Your task to perform on an android device: Go to Maps Image 0: 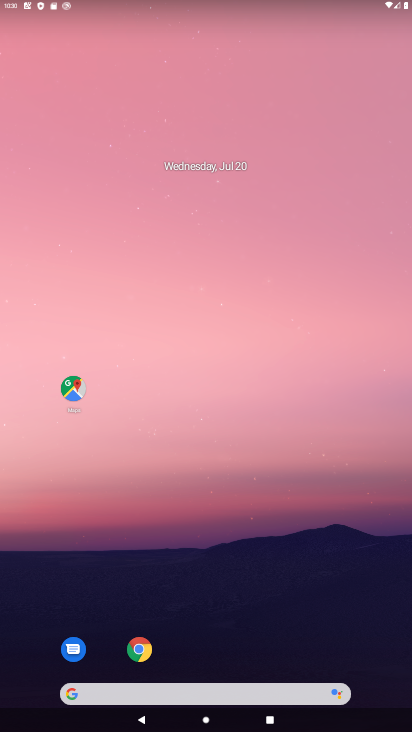
Step 0: click (72, 380)
Your task to perform on an android device: Go to Maps Image 1: 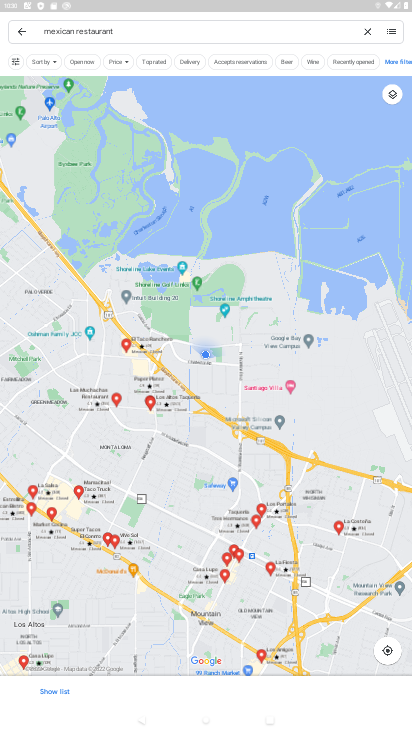
Step 1: task complete